Your task to perform on an android device: Open location settings Image 0: 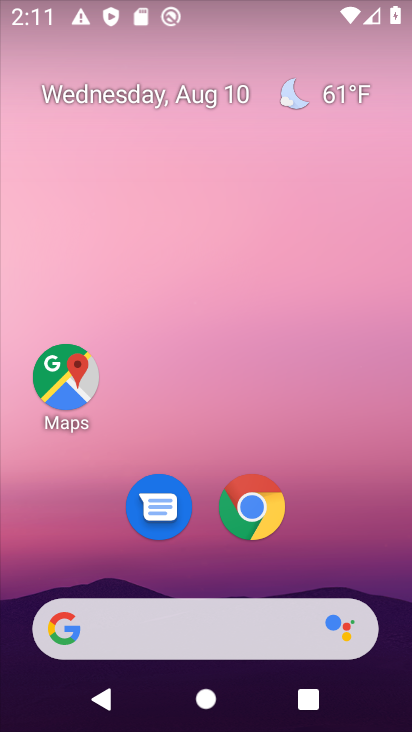
Step 0: drag from (344, 548) to (332, 28)
Your task to perform on an android device: Open location settings Image 1: 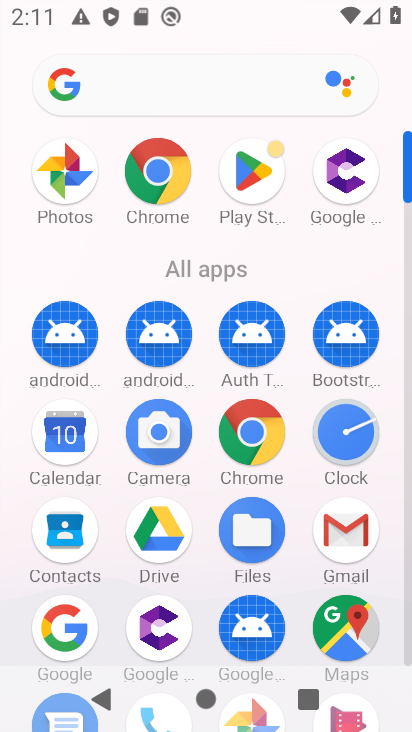
Step 1: drag from (299, 366) to (304, 59)
Your task to perform on an android device: Open location settings Image 2: 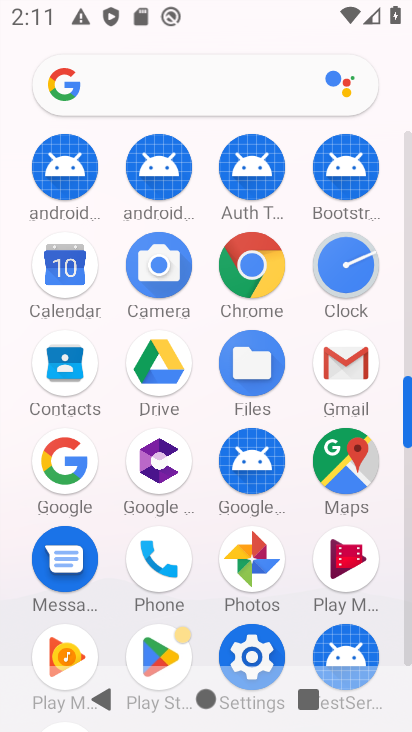
Step 2: click (254, 646)
Your task to perform on an android device: Open location settings Image 3: 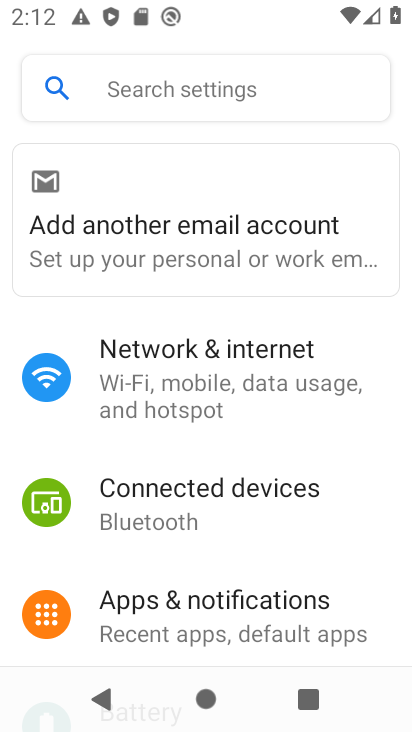
Step 3: drag from (385, 564) to (319, 180)
Your task to perform on an android device: Open location settings Image 4: 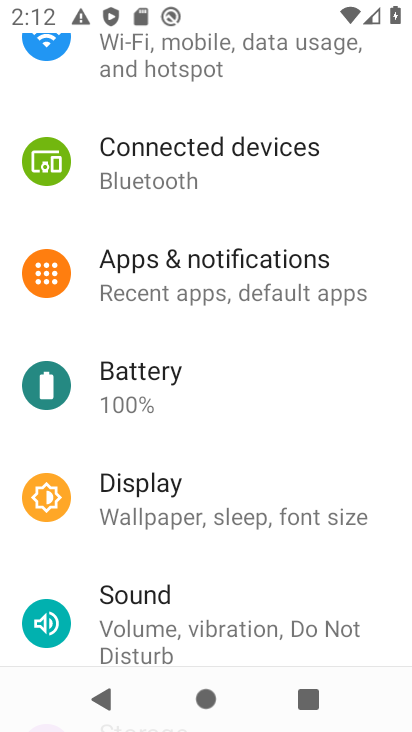
Step 4: drag from (323, 591) to (353, 184)
Your task to perform on an android device: Open location settings Image 5: 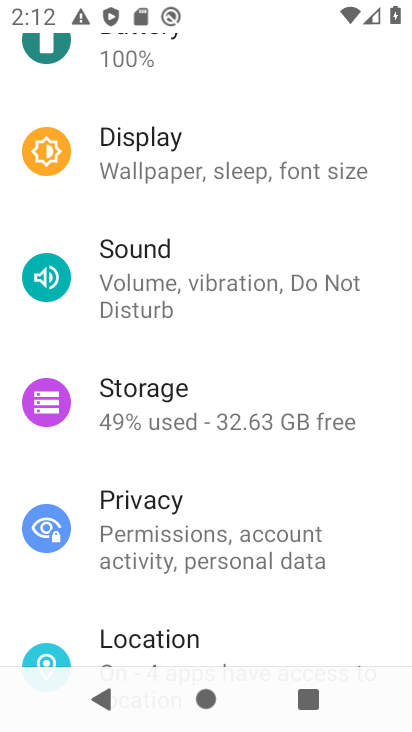
Step 5: click (182, 629)
Your task to perform on an android device: Open location settings Image 6: 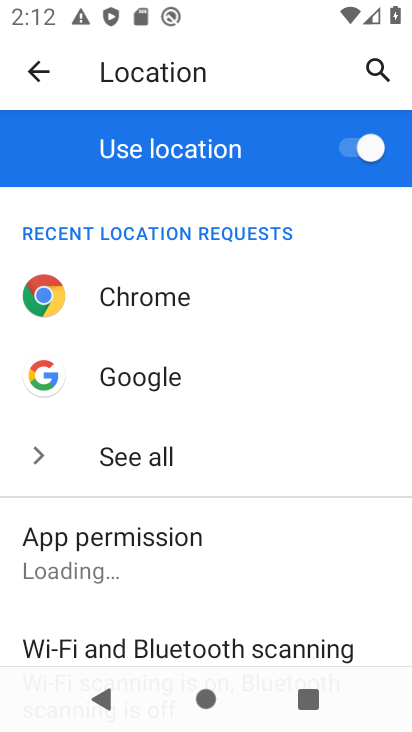
Step 6: task complete